Your task to perform on an android device: Go to accessibility settings Image 0: 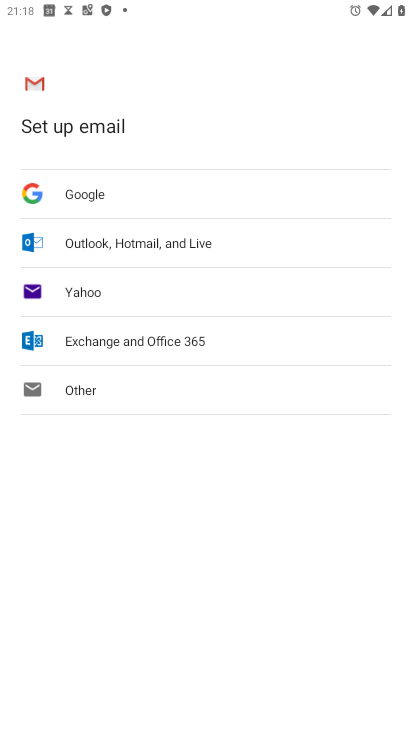
Step 0: press home button
Your task to perform on an android device: Go to accessibility settings Image 1: 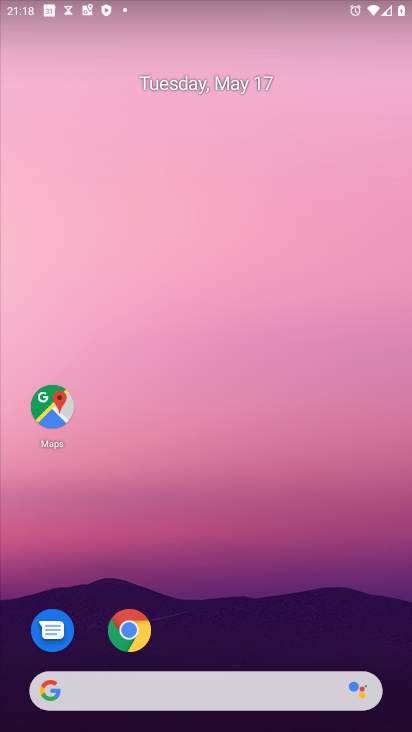
Step 1: drag from (207, 616) to (228, 158)
Your task to perform on an android device: Go to accessibility settings Image 2: 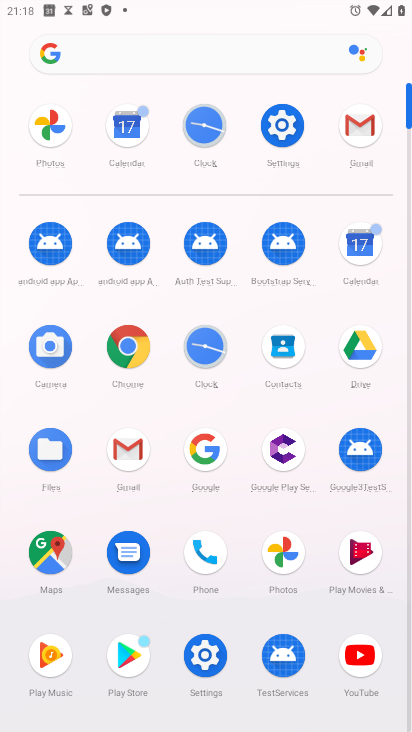
Step 2: click (275, 142)
Your task to perform on an android device: Go to accessibility settings Image 3: 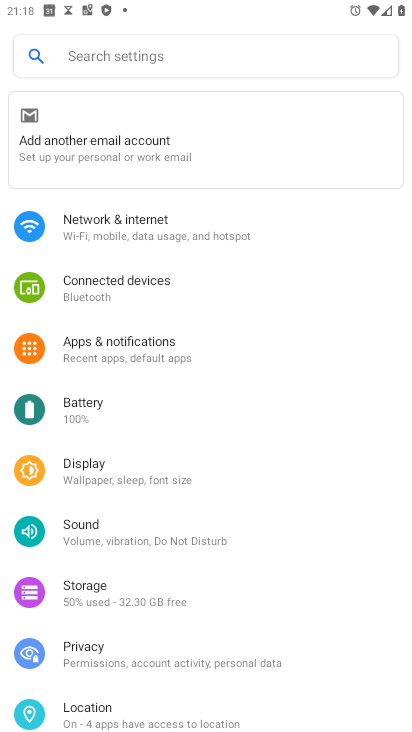
Step 3: drag from (119, 678) to (161, 224)
Your task to perform on an android device: Go to accessibility settings Image 4: 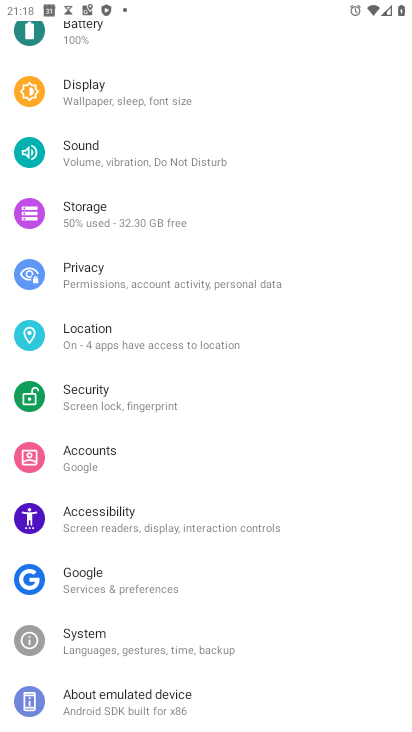
Step 4: click (114, 508)
Your task to perform on an android device: Go to accessibility settings Image 5: 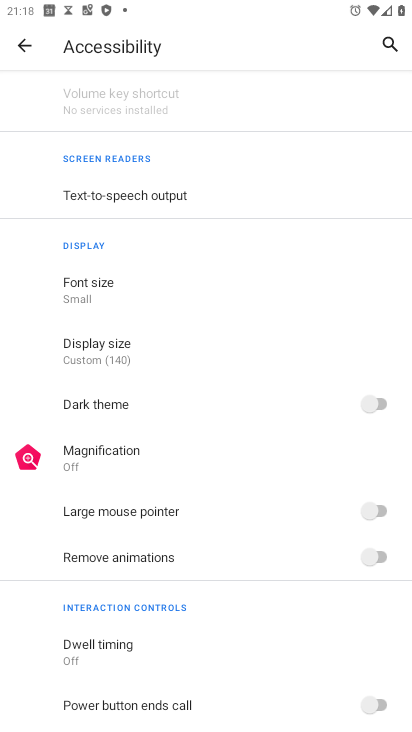
Step 5: task complete